Your task to perform on an android device: delete a single message in the gmail app Image 0: 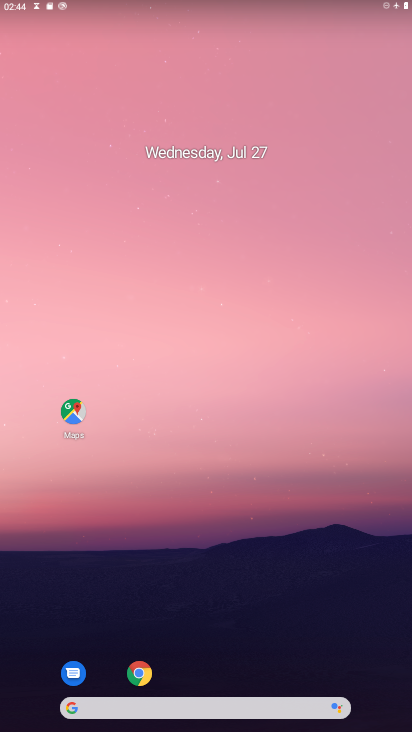
Step 0: drag from (249, 660) to (283, 278)
Your task to perform on an android device: delete a single message in the gmail app Image 1: 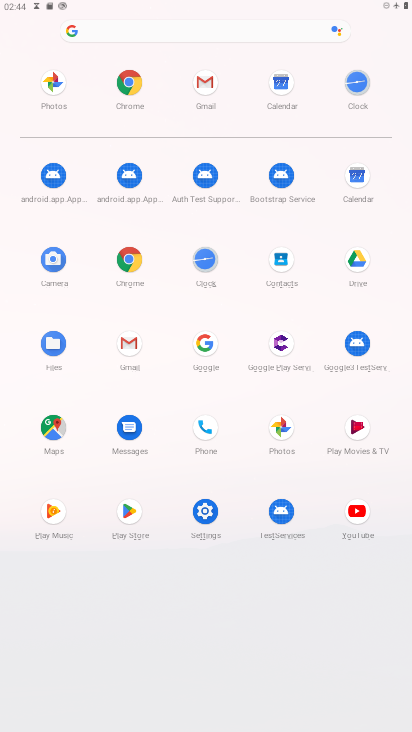
Step 1: click (125, 343)
Your task to perform on an android device: delete a single message in the gmail app Image 2: 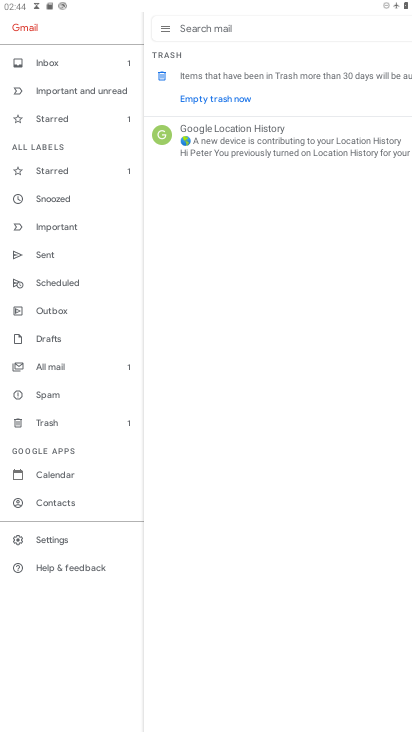
Step 2: click (201, 131)
Your task to perform on an android device: delete a single message in the gmail app Image 3: 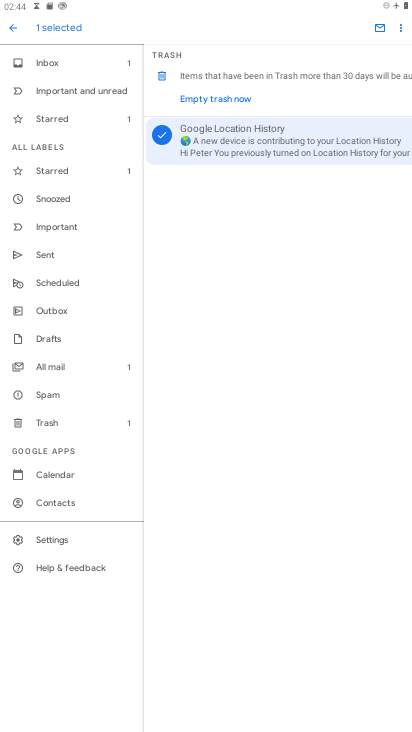
Step 3: click (52, 361)
Your task to perform on an android device: delete a single message in the gmail app Image 4: 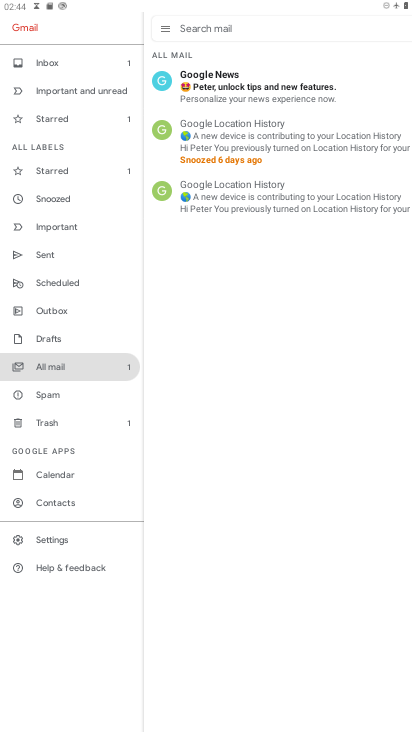
Step 4: click (215, 84)
Your task to perform on an android device: delete a single message in the gmail app Image 5: 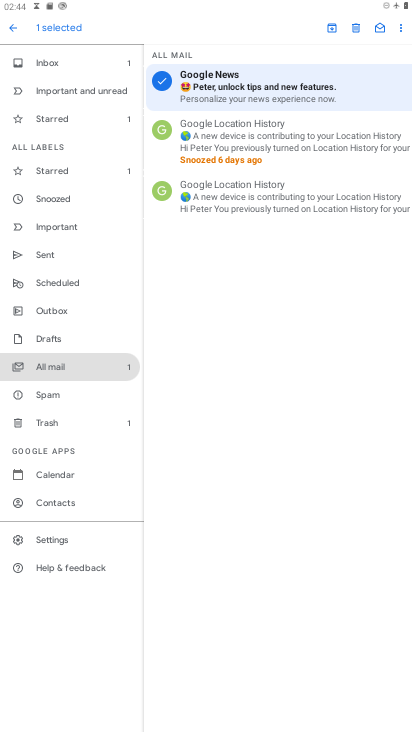
Step 5: click (358, 30)
Your task to perform on an android device: delete a single message in the gmail app Image 6: 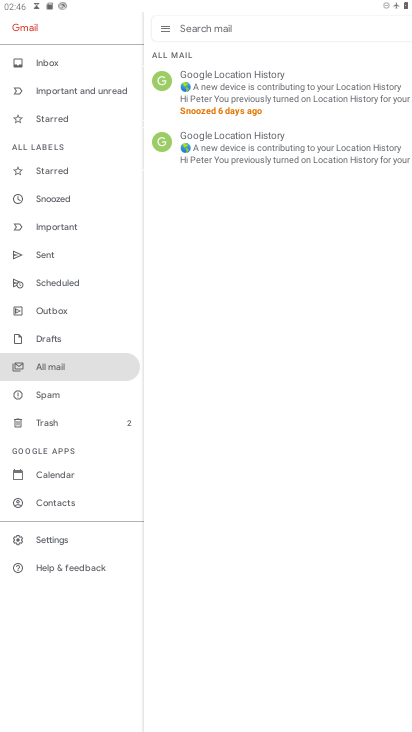
Step 6: task complete